Your task to perform on an android device: Open the web browser Image 0: 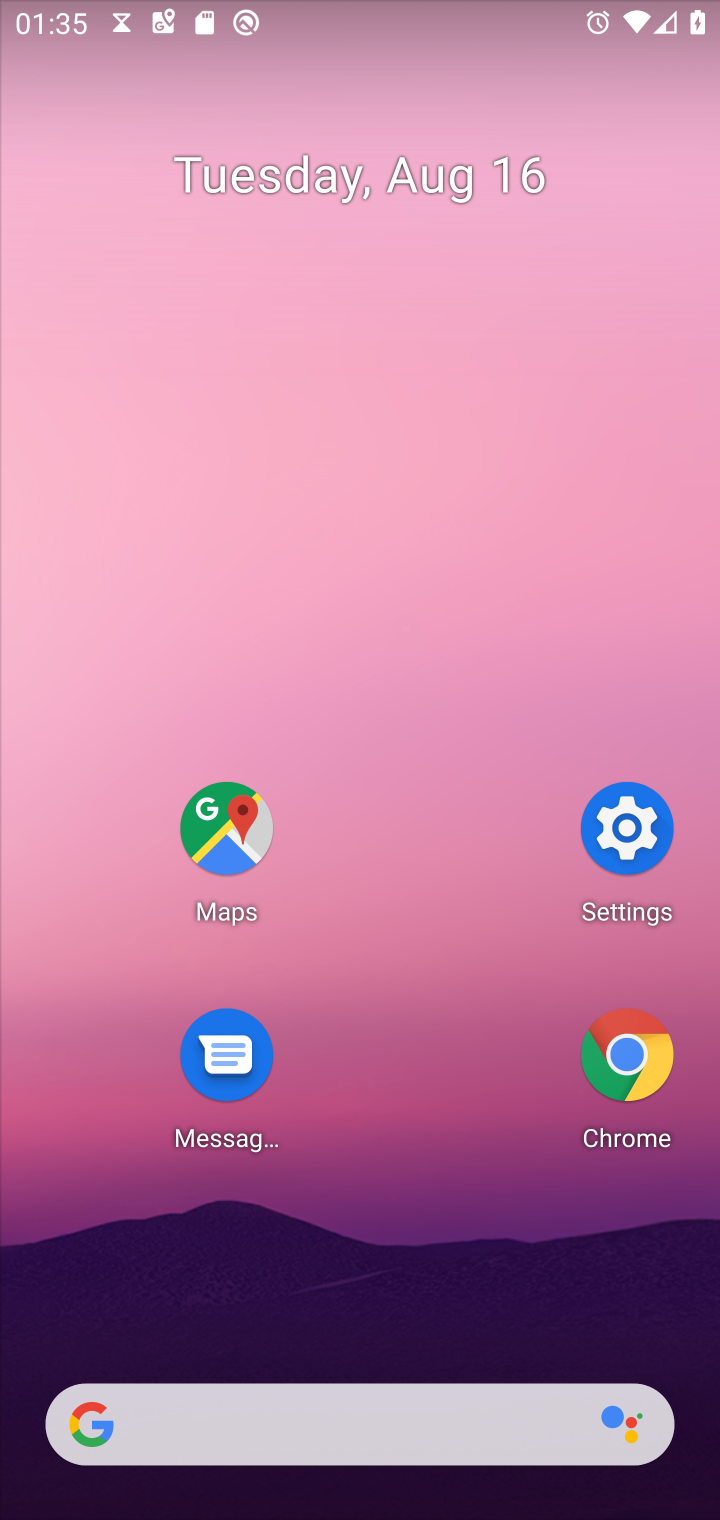
Step 0: press home button
Your task to perform on an android device: Open the web browser Image 1: 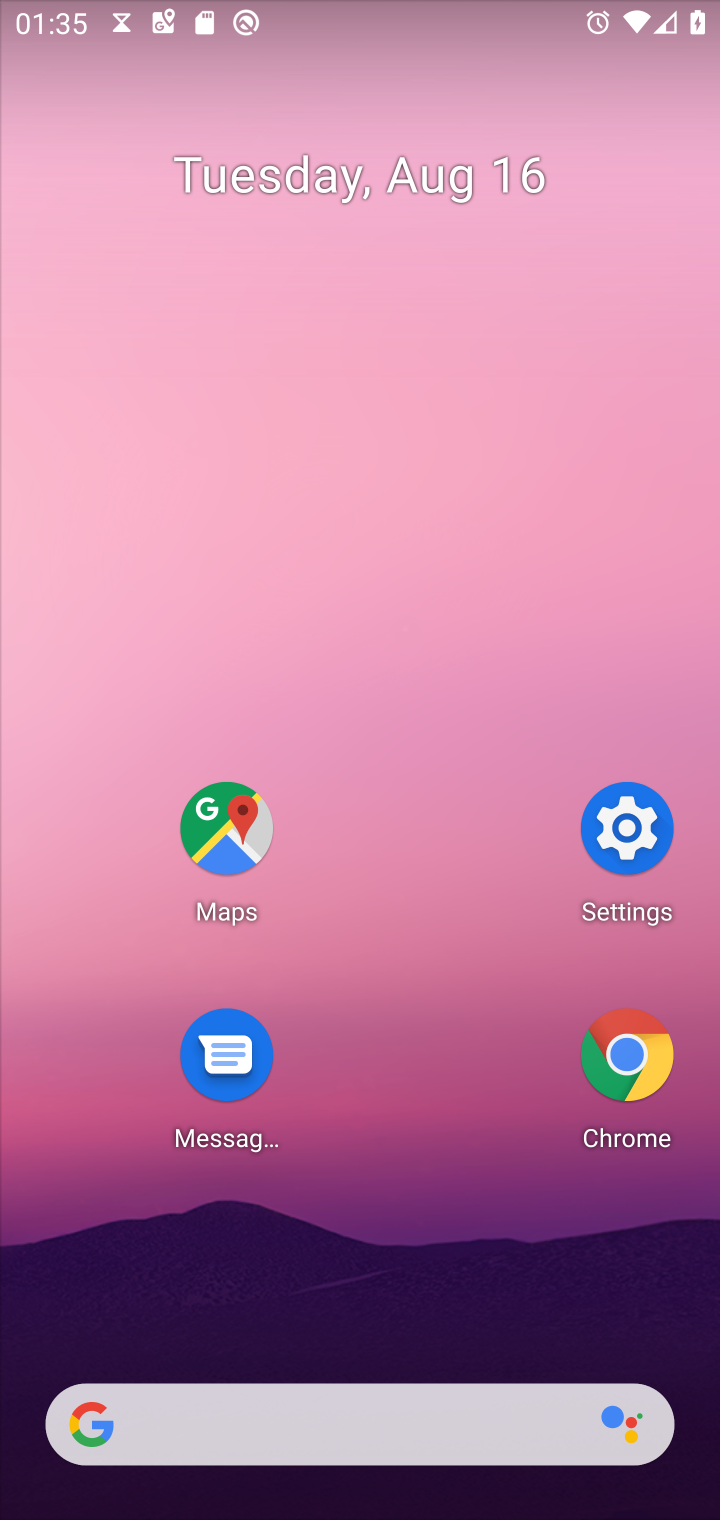
Step 1: click (628, 1060)
Your task to perform on an android device: Open the web browser Image 2: 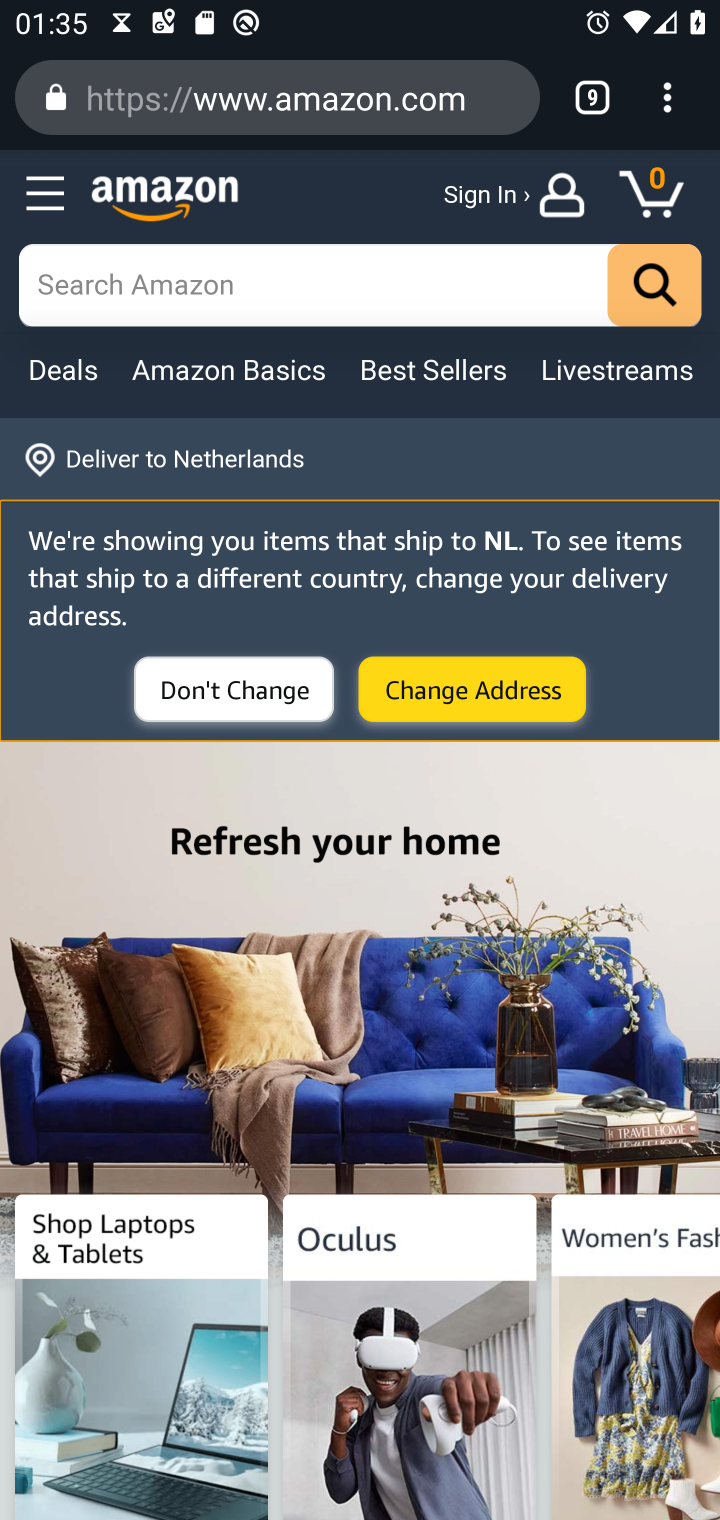
Step 2: task complete